Your task to perform on an android device: Show me popular games on the Play Store Image 0: 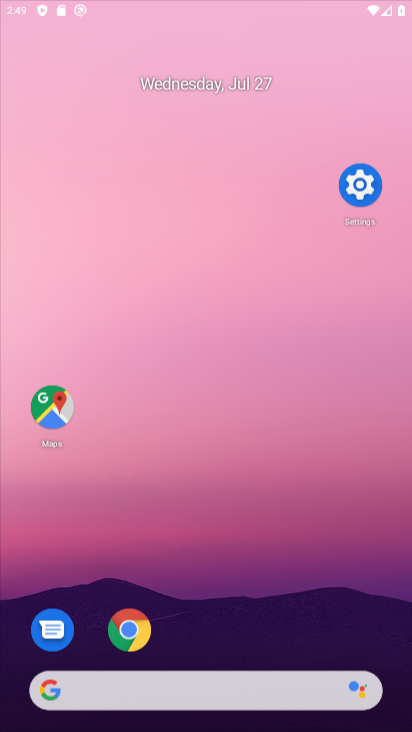
Step 0: press home button
Your task to perform on an android device: Show me popular games on the Play Store Image 1: 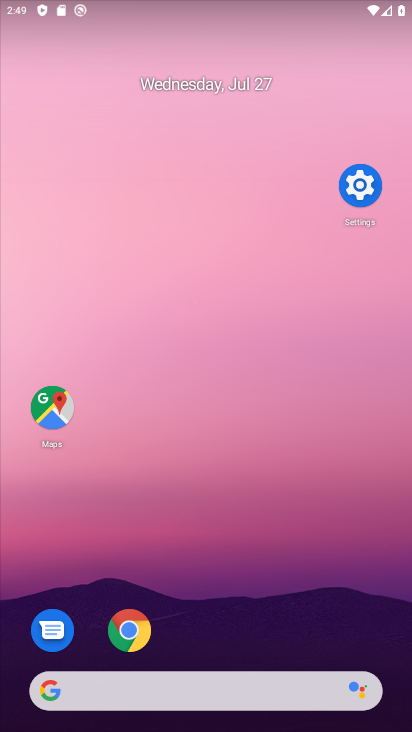
Step 1: drag from (257, 662) to (130, 11)
Your task to perform on an android device: Show me popular games on the Play Store Image 2: 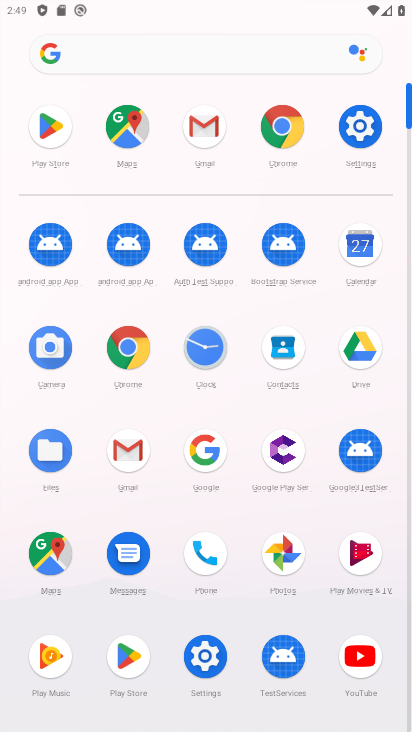
Step 2: click (130, 657)
Your task to perform on an android device: Show me popular games on the Play Store Image 3: 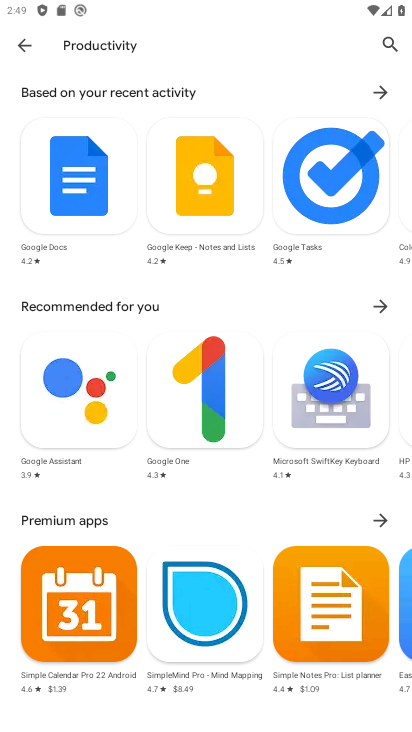
Step 3: click (26, 44)
Your task to perform on an android device: Show me popular games on the Play Store Image 4: 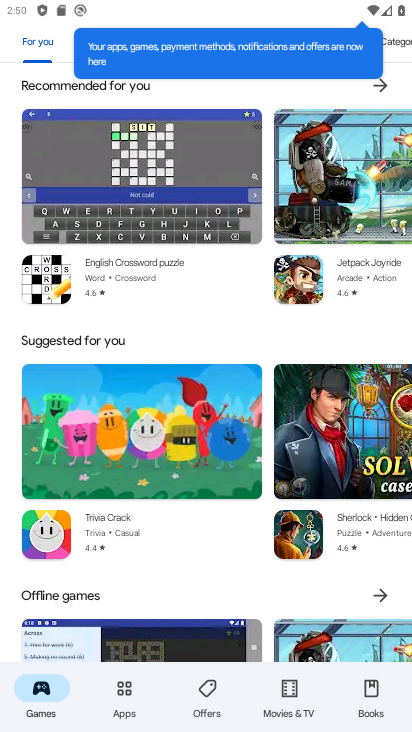
Step 4: click (393, 39)
Your task to perform on an android device: Show me popular games on the Play Store Image 5: 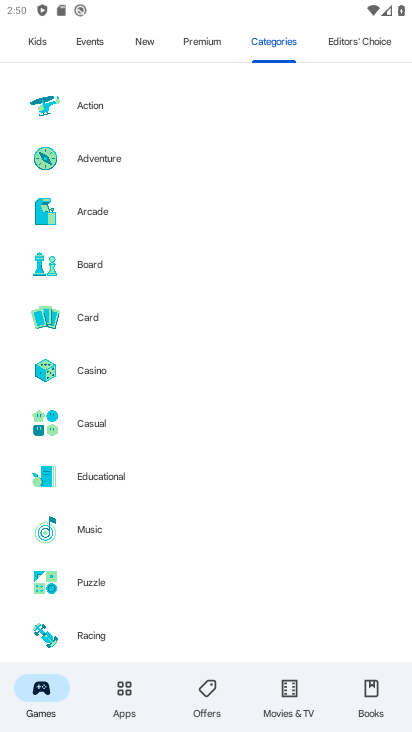
Step 5: task complete